Your task to perform on an android device: open the mobile data screen to see how much data has been used Image 0: 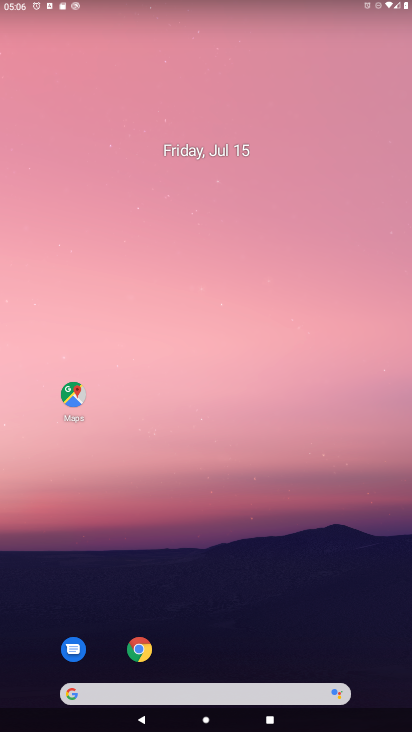
Step 0: drag from (398, 677) to (321, 109)
Your task to perform on an android device: open the mobile data screen to see how much data has been used Image 1: 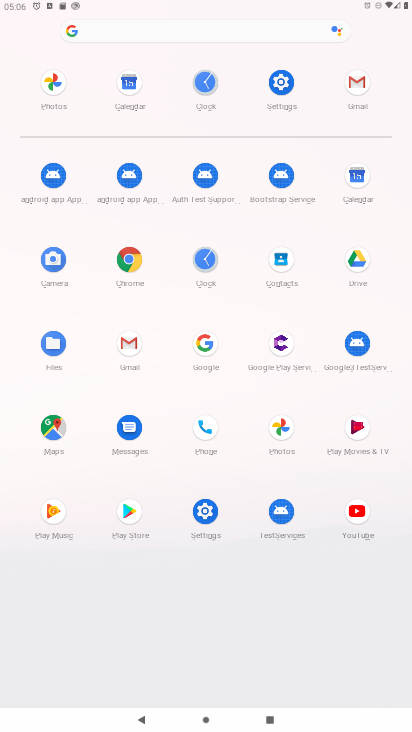
Step 1: click (205, 511)
Your task to perform on an android device: open the mobile data screen to see how much data has been used Image 2: 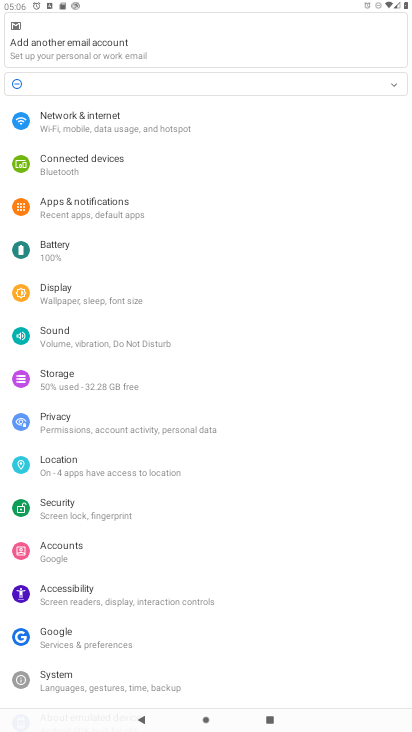
Step 2: click (65, 117)
Your task to perform on an android device: open the mobile data screen to see how much data has been used Image 3: 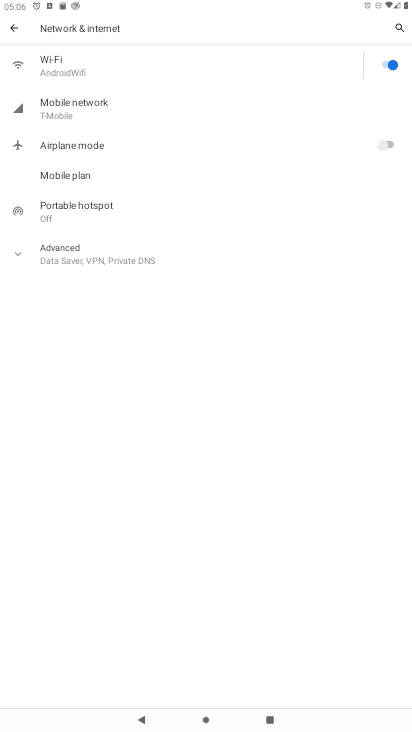
Step 3: click (60, 109)
Your task to perform on an android device: open the mobile data screen to see how much data has been used Image 4: 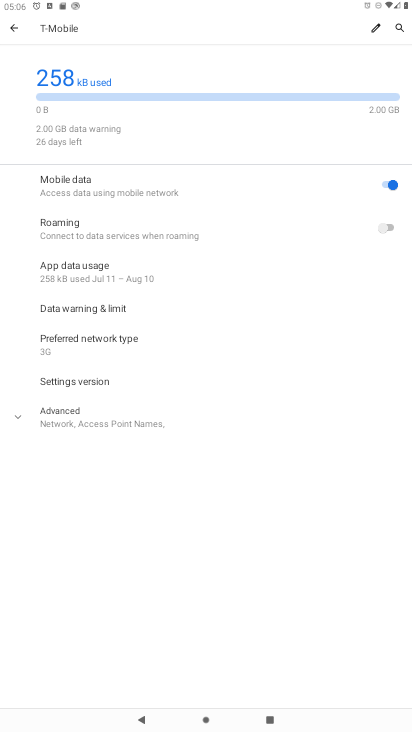
Step 4: task complete